Your task to perform on an android device: turn off location Image 0: 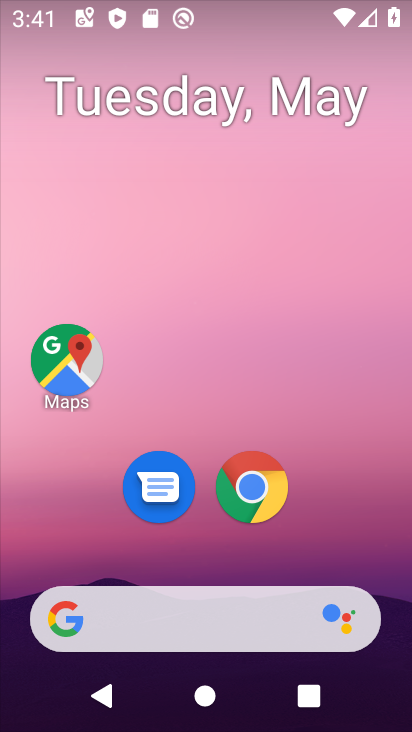
Step 0: drag from (208, 542) to (295, 0)
Your task to perform on an android device: turn off location Image 1: 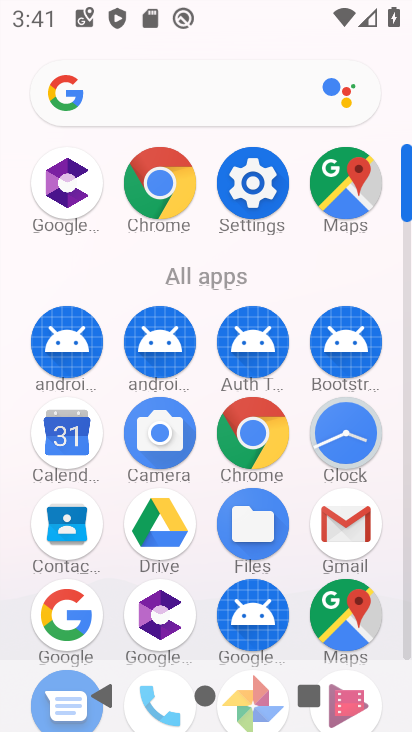
Step 1: click (266, 194)
Your task to perform on an android device: turn off location Image 2: 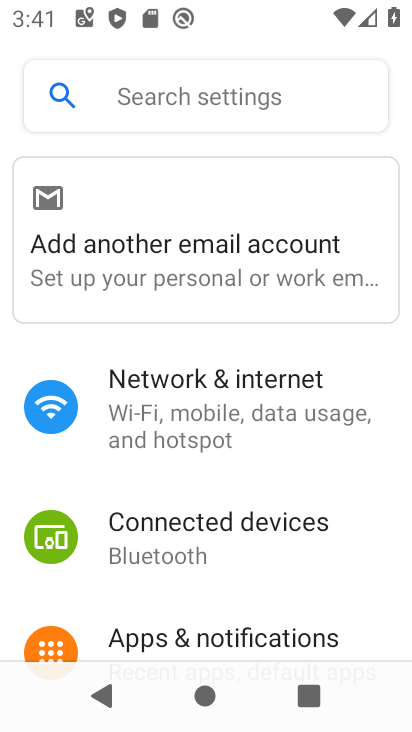
Step 2: drag from (193, 427) to (264, 39)
Your task to perform on an android device: turn off location Image 3: 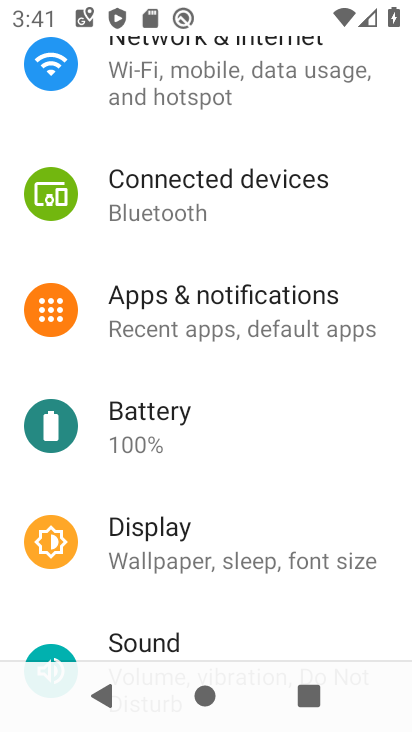
Step 3: drag from (218, 492) to (282, 161)
Your task to perform on an android device: turn off location Image 4: 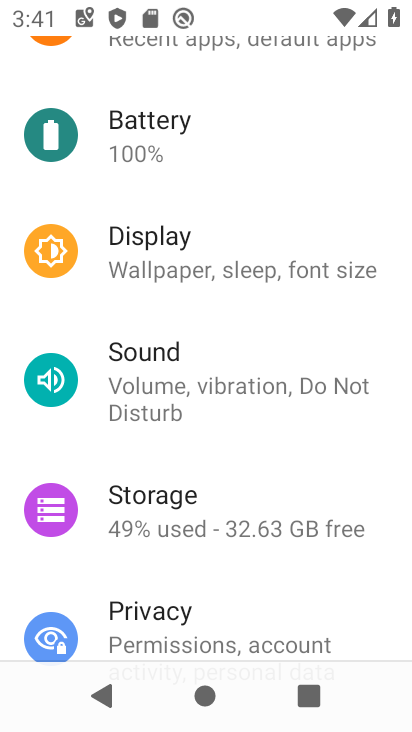
Step 4: drag from (178, 593) to (257, 299)
Your task to perform on an android device: turn off location Image 5: 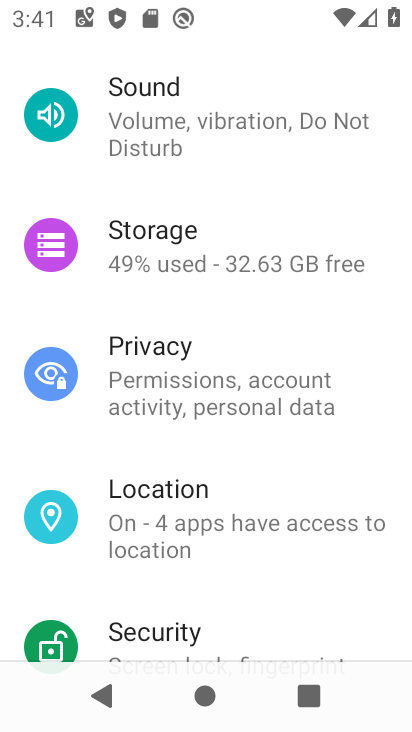
Step 5: click (176, 504)
Your task to perform on an android device: turn off location Image 6: 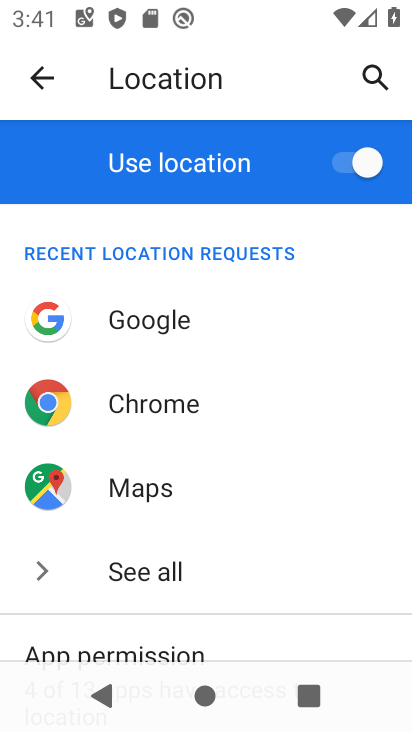
Step 6: click (345, 165)
Your task to perform on an android device: turn off location Image 7: 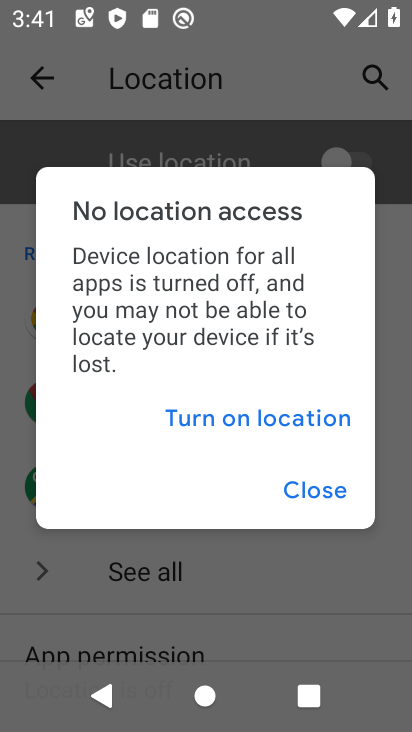
Step 7: click (307, 490)
Your task to perform on an android device: turn off location Image 8: 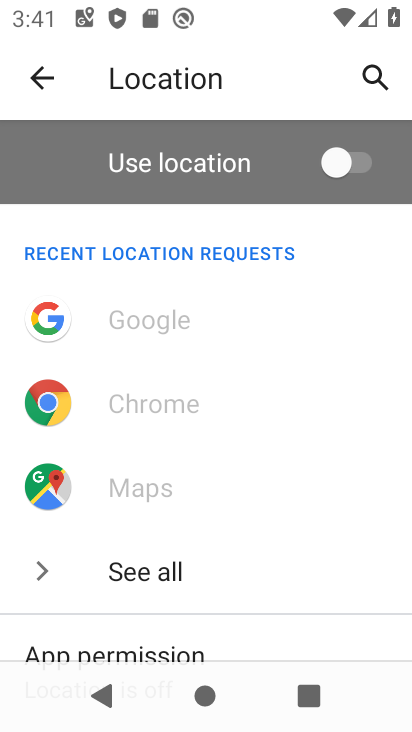
Step 8: task complete